Your task to perform on an android device: Go to eBay Image 0: 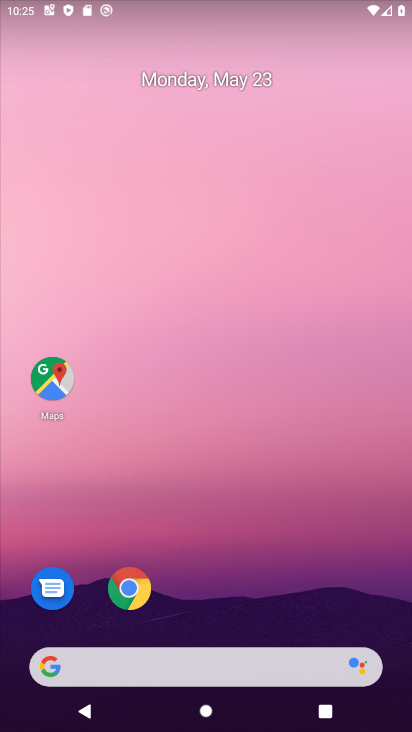
Step 0: click (140, 583)
Your task to perform on an android device: Go to eBay Image 1: 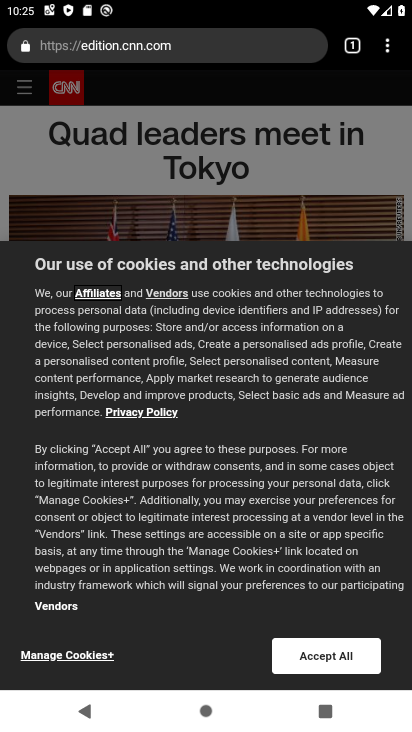
Step 1: click (214, 52)
Your task to perform on an android device: Go to eBay Image 2: 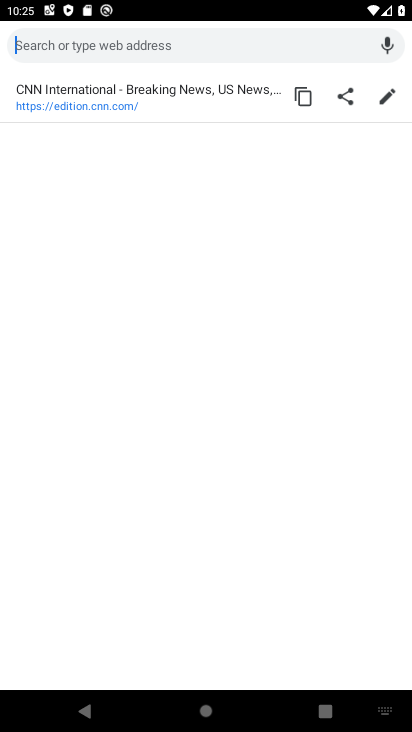
Step 2: type "ebay"
Your task to perform on an android device: Go to eBay Image 3: 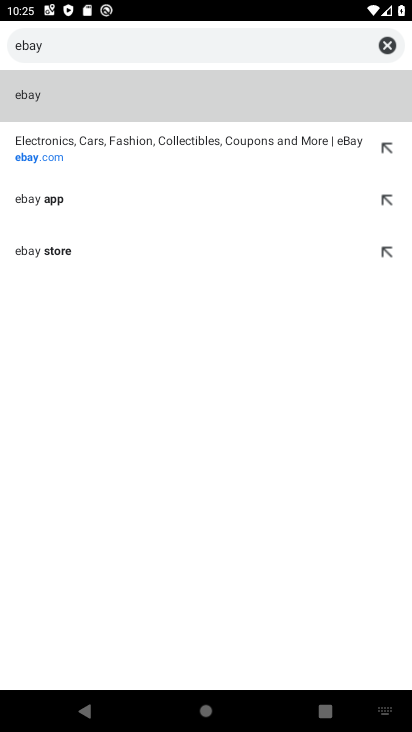
Step 3: click (33, 157)
Your task to perform on an android device: Go to eBay Image 4: 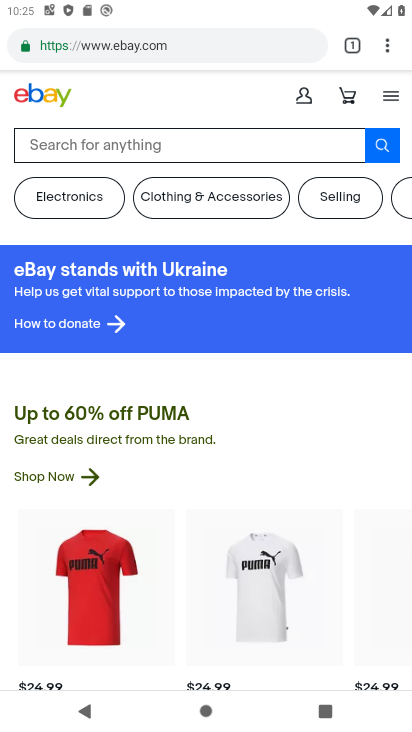
Step 4: task complete